Your task to perform on an android device: Go to Wikipedia Image 0: 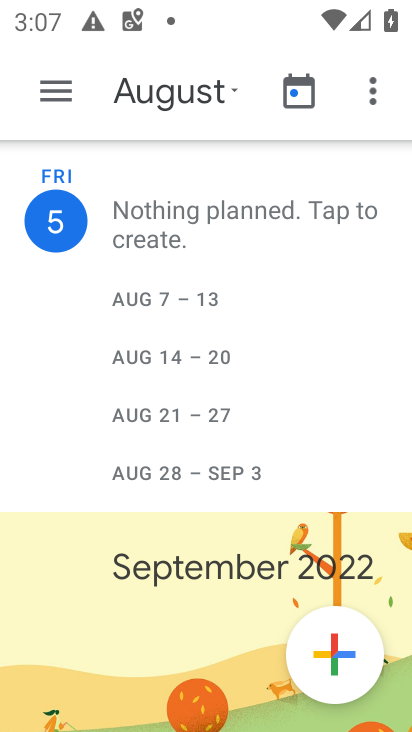
Step 0: press home button
Your task to perform on an android device: Go to Wikipedia Image 1: 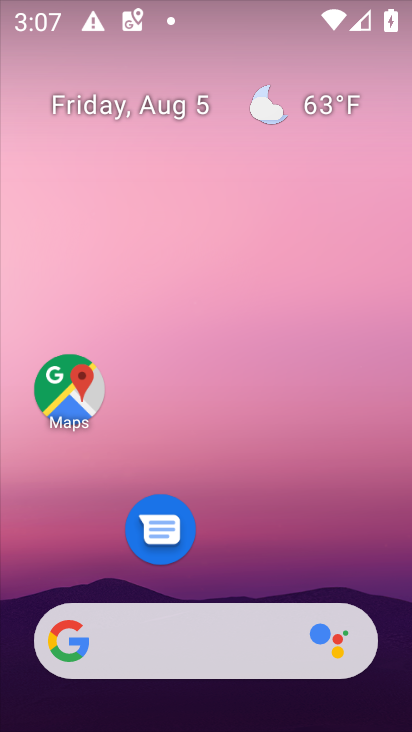
Step 1: click (248, 638)
Your task to perform on an android device: Go to Wikipedia Image 2: 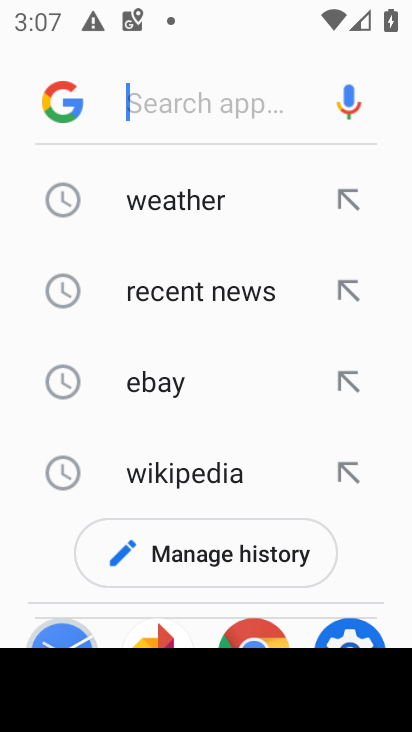
Step 2: click (200, 478)
Your task to perform on an android device: Go to Wikipedia Image 3: 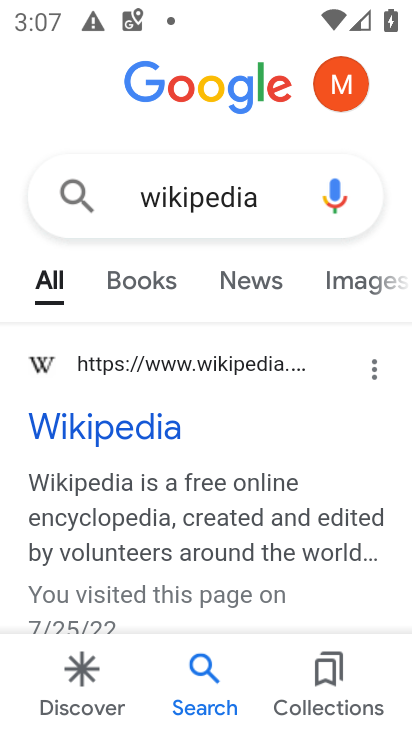
Step 3: click (105, 360)
Your task to perform on an android device: Go to Wikipedia Image 4: 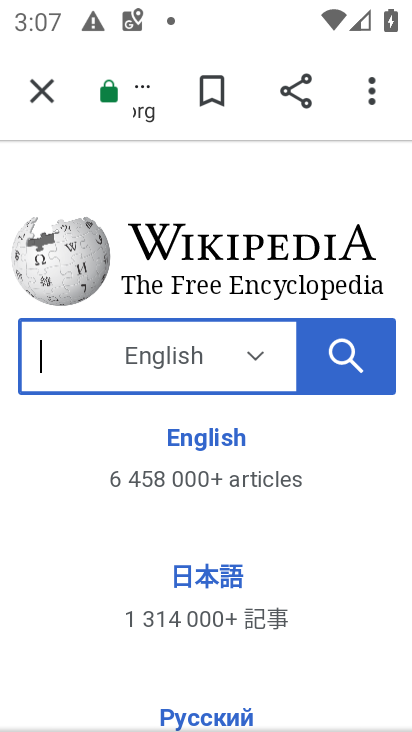
Step 4: task complete